Your task to perform on an android device: turn on bluetooth scan Image 0: 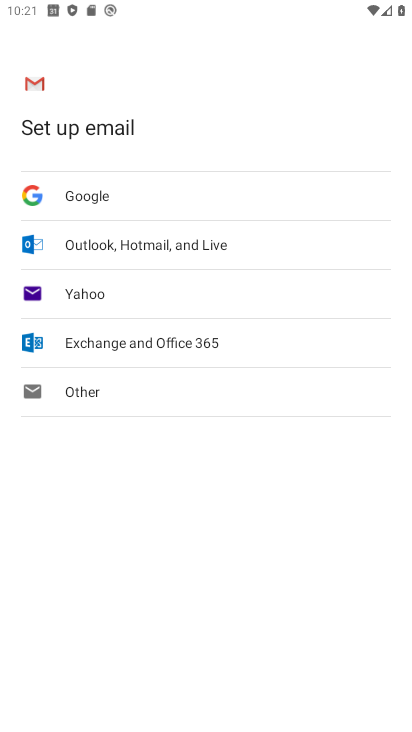
Step 0: press home button
Your task to perform on an android device: turn on bluetooth scan Image 1: 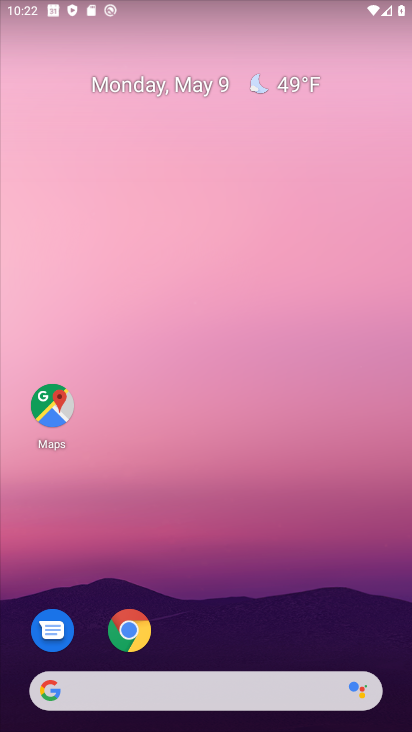
Step 1: drag from (222, 551) to (222, 295)
Your task to perform on an android device: turn on bluetooth scan Image 2: 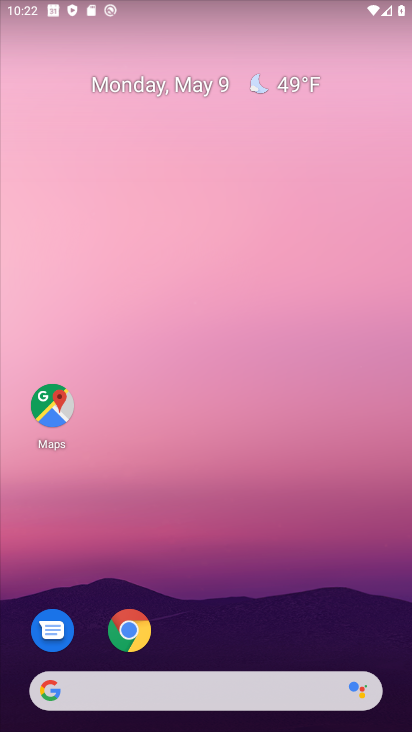
Step 2: drag from (209, 631) to (226, 113)
Your task to perform on an android device: turn on bluetooth scan Image 3: 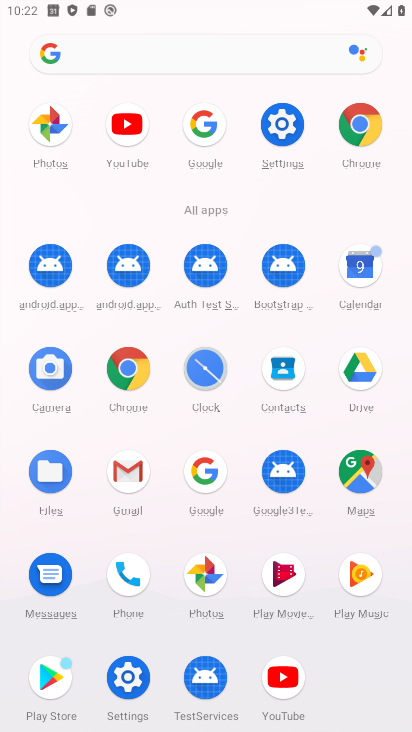
Step 3: click (283, 143)
Your task to perform on an android device: turn on bluetooth scan Image 4: 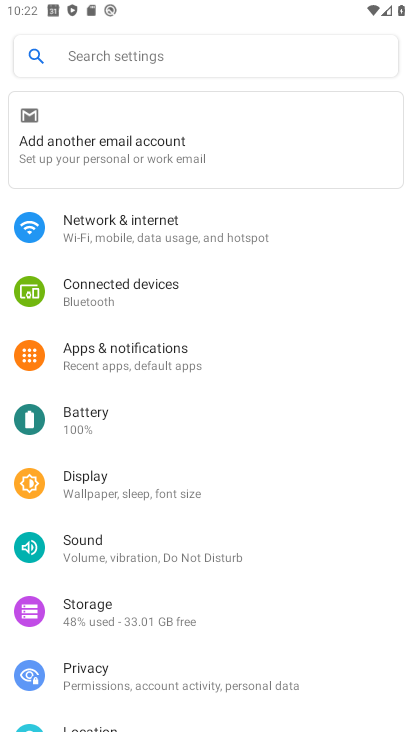
Step 4: drag from (192, 650) to (218, 325)
Your task to perform on an android device: turn on bluetooth scan Image 5: 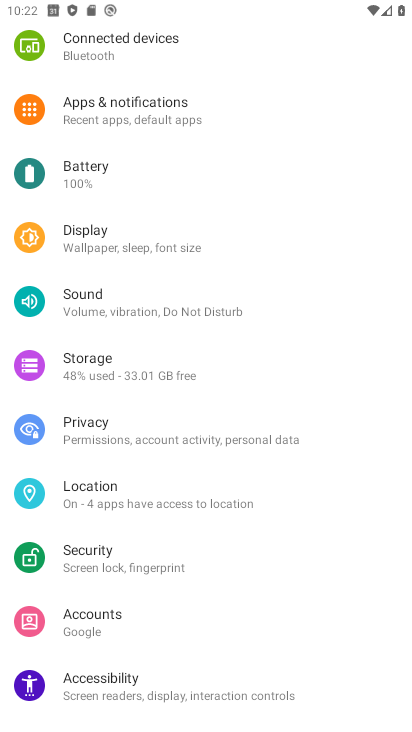
Step 5: click (96, 507)
Your task to perform on an android device: turn on bluetooth scan Image 6: 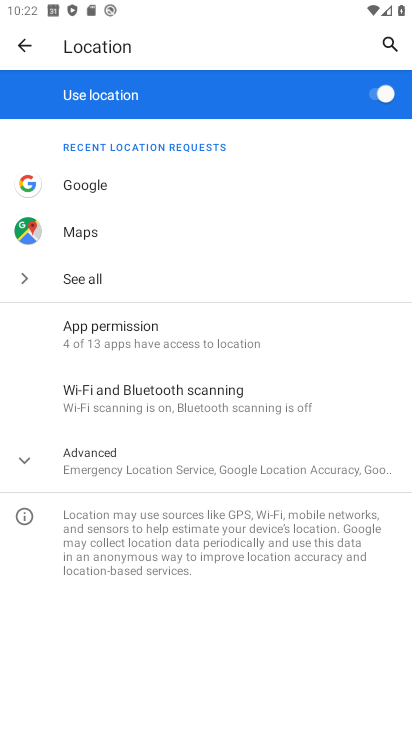
Step 6: click (144, 402)
Your task to perform on an android device: turn on bluetooth scan Image 7: 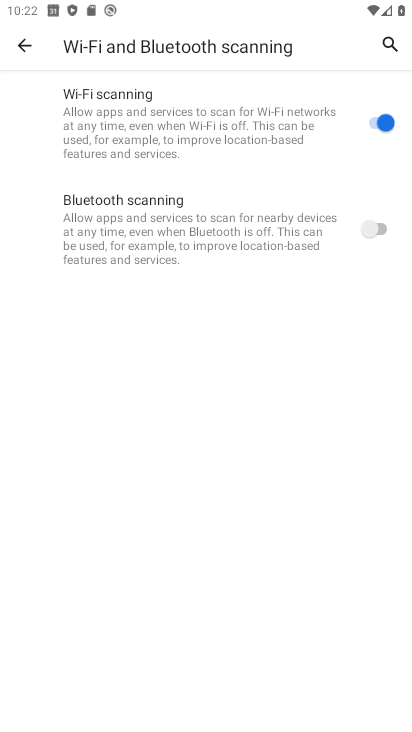
Step 7: click (374, 234)
Your task to perform on an android device: turn on bluetooth scan Image 8: 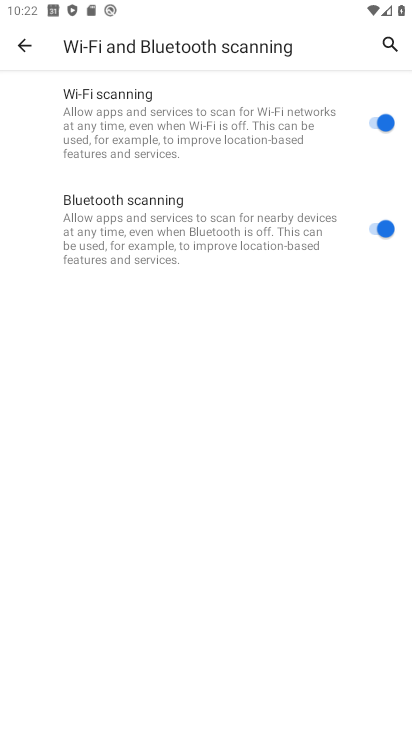
Step 8: task complete